Your task to perform on an android device: turn notification dots off Image 0: 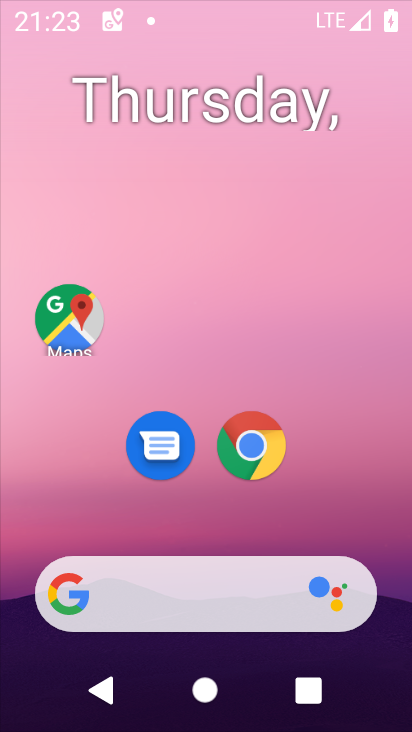
Step 0: click (353, 119)
Your task to perform on an android device: turn notification dots off Image 1: 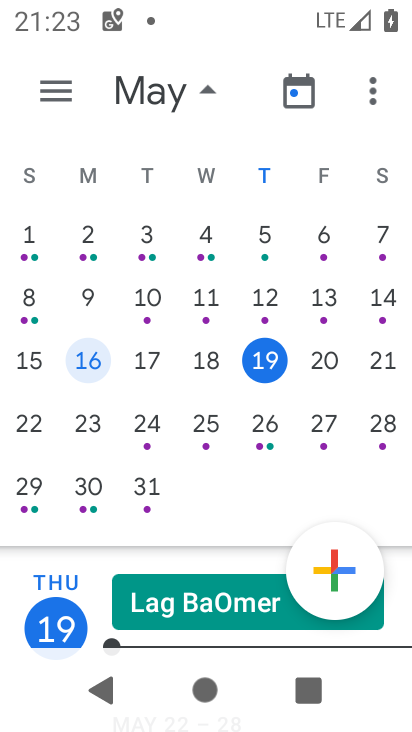
Step 1: drag from (224, 523) to (243, 198)
Your task to perform on an android device: turn notification dots off Image 2: 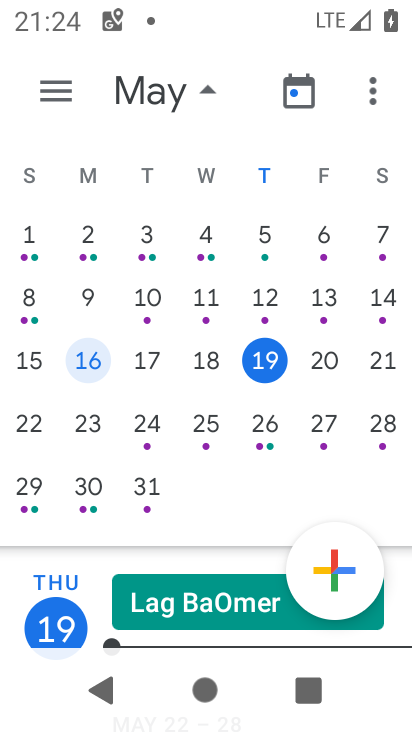
Step 2: press home button
Your task to perform on an android device: turn notification dots off Image 3: 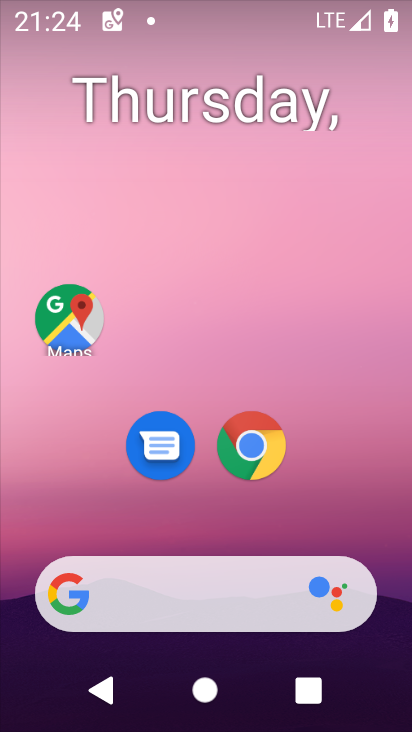
Step 3: drag from (189, 530) to (288, 205)
Your task to perform on an android device: turn notification dots off Image 4: 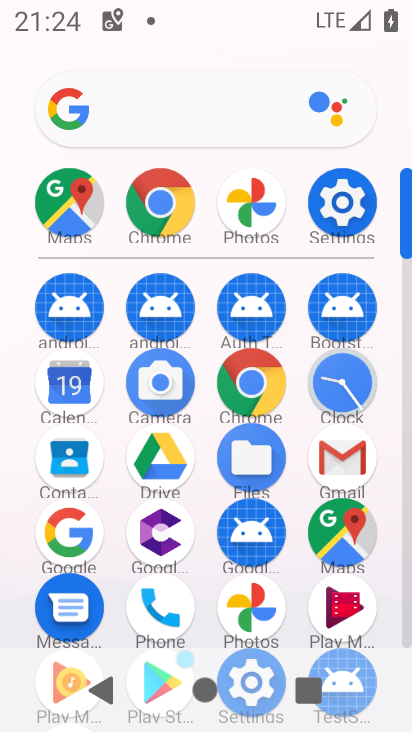
Step 4: click (322, 198)
Your task to perform on an android device: turn notification dots off Image 5: 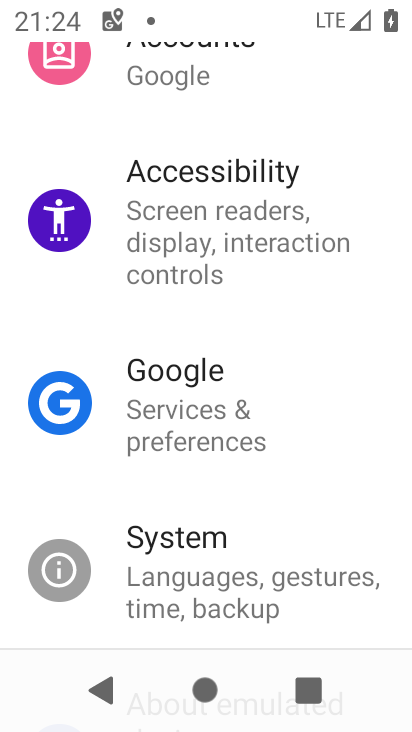
Step 5: drag from (258, 181) to (385, 720)
Your task to perform on an android device: turn notification dots off Image 6: 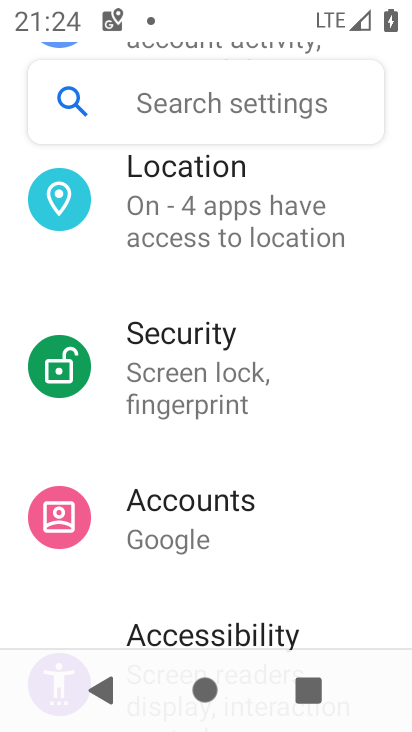
Step 6: drag from (234, 193) to (359, 718)
Your task to perform on an android device: turn notification dots off Image 7: 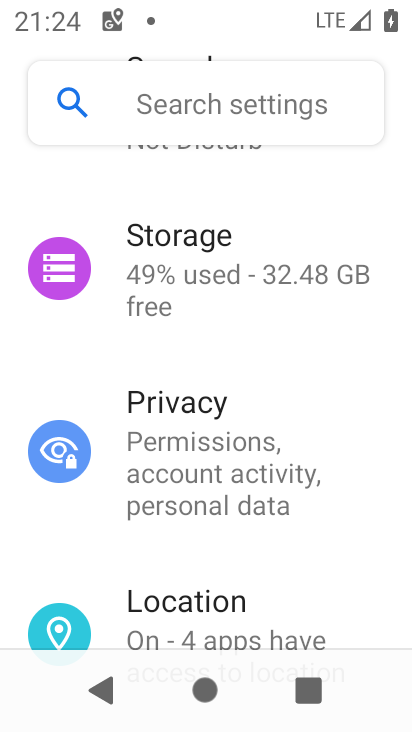
Step 7: drag from (251, 290) to (330, 730)
Your task to perform on an android device: turn notification dots off Image 8: 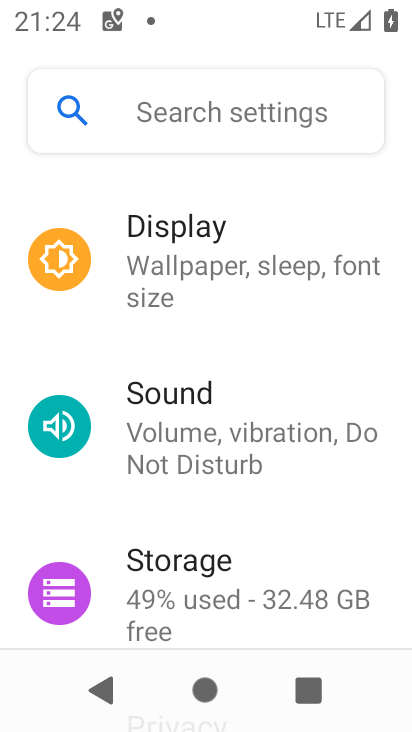
Step 8: drag from (204, 335) to (342, 727)
Your task to perform on an android device: turn notification dots off Image 9: 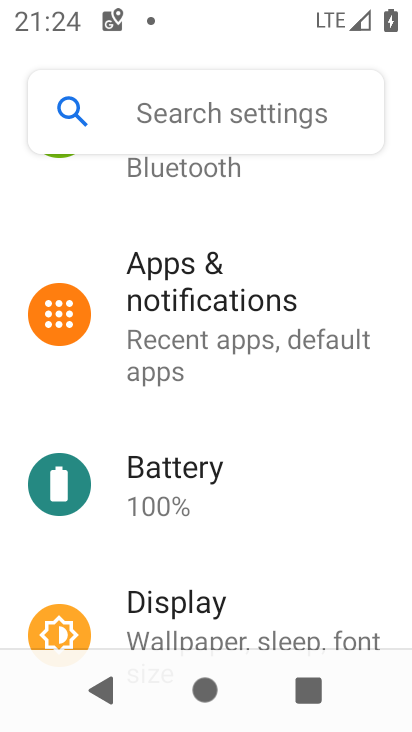
Step 9: drag from (232, 415) to (320, 725)
Your task to perform on an android device: turn notification dots off Image 10: 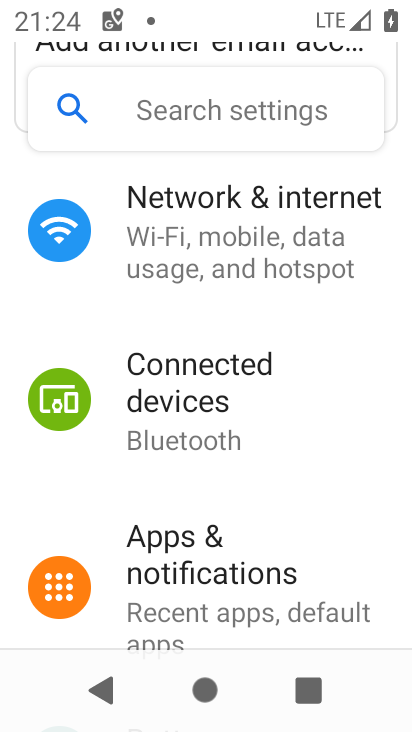
Step 10: click (212, 561)
Your task to perform on an android device: turn notification dots off Image 11: 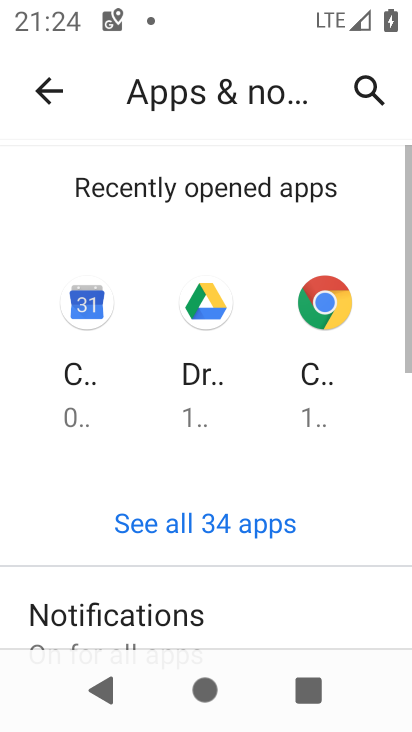
Step 11: drag from (220, 562) to (375, 100)
Your task to perform on an android device: turn notification dots off Image 12: 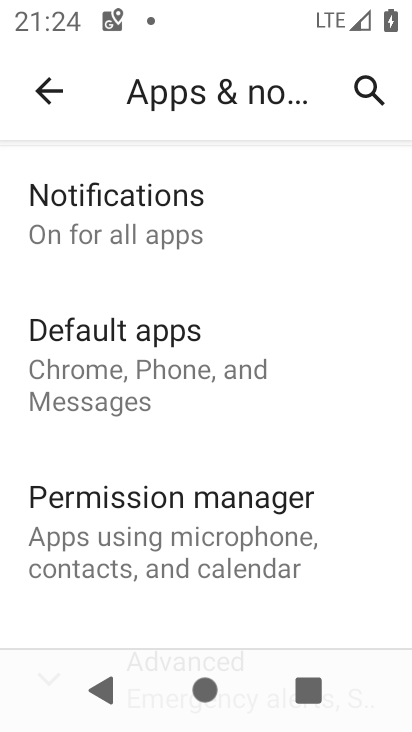
Step 12: click (158, 175)
Your task to perform on an android device: turn notification dots off Image 13: 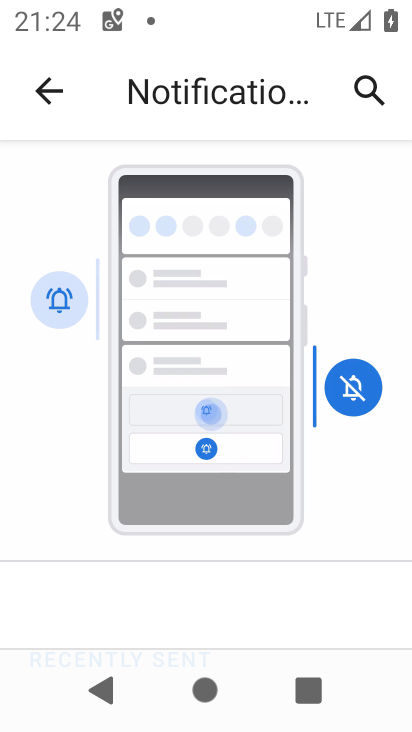
Step 13: drag from (206, 579) to (299, 168)
Your task to perform on an android device: turn notification dots off Image 14: 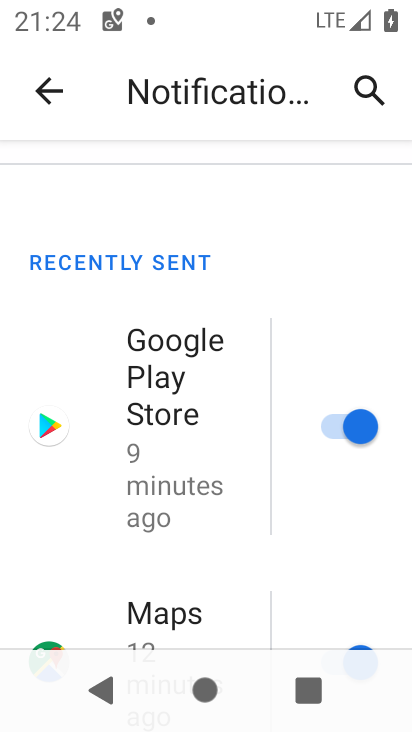
Step 14: drag from (262, 633) to (267, 291)
Your task to perform on an android device: turn notification dots off Image 15: 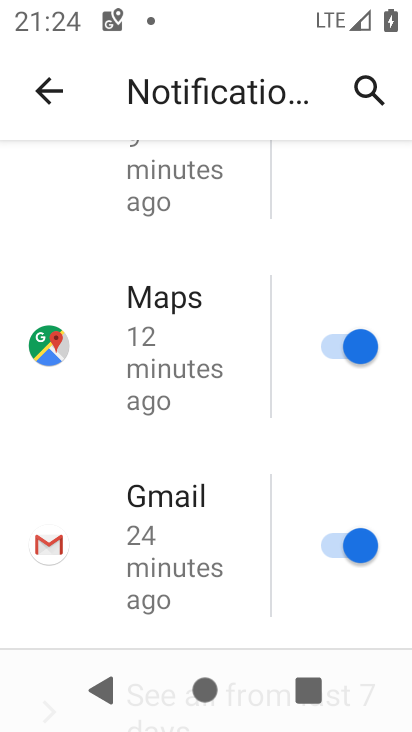
Step 15: drag from (254, 576) to (334, 220)
Your task to perform on an android device: turn notification dots off Image 16: 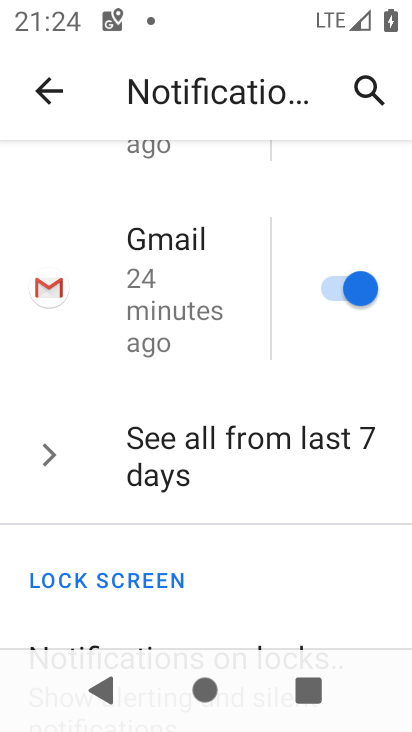
Step 16: drag from (269, 526) to (343, 273)
Your task to perform on an android device: turn notification dots off Image 17: 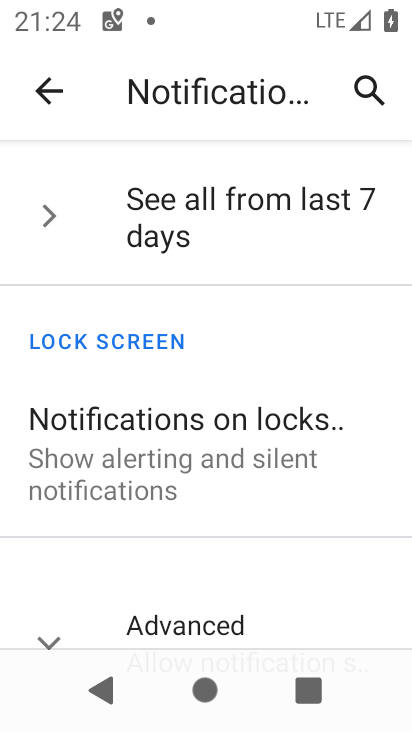
Step 17: click (145, 649)
Your task to perform on an android device: turn notification dots off Image 18: 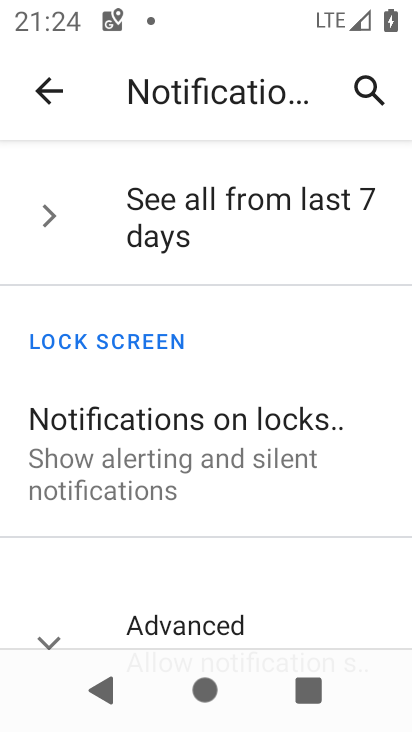
Step 18: drag from (178, 596) to (311, 268)
Your task to perform on an android device: turn notification dots off Image 19: 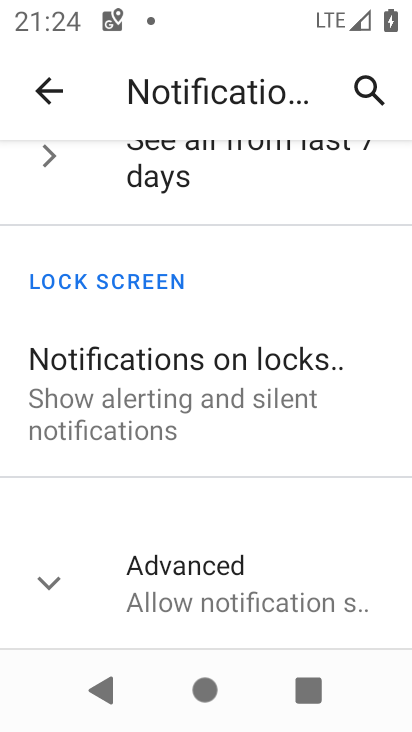
Step 19: click (207, 571)
Your task to perform on an android device: turn notification dots off Image 20: 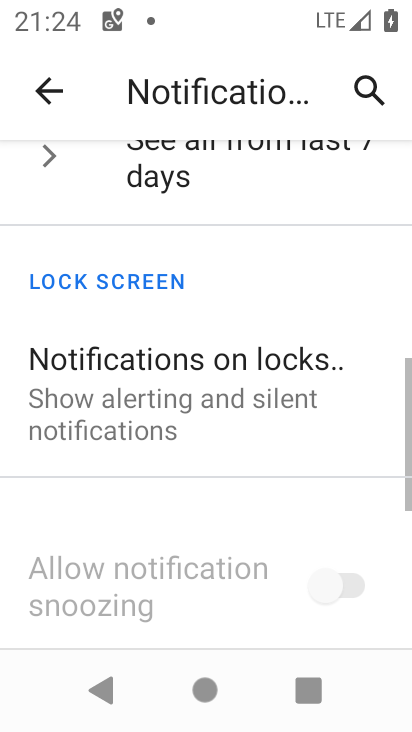
Step 20: drag from (207, 571) to (352, 207)
Your task to perform on an android device: turn notification dots off Image 21: 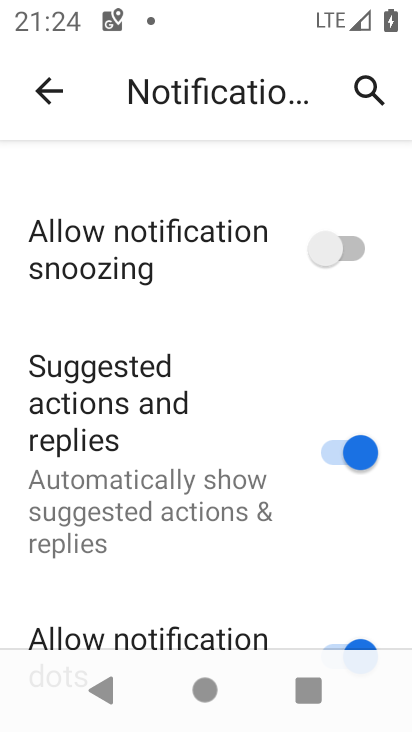
Step 21: drag from (299, 587) to (406, 169)
Your task to perform on an android device: turn notification dots off Image 22: 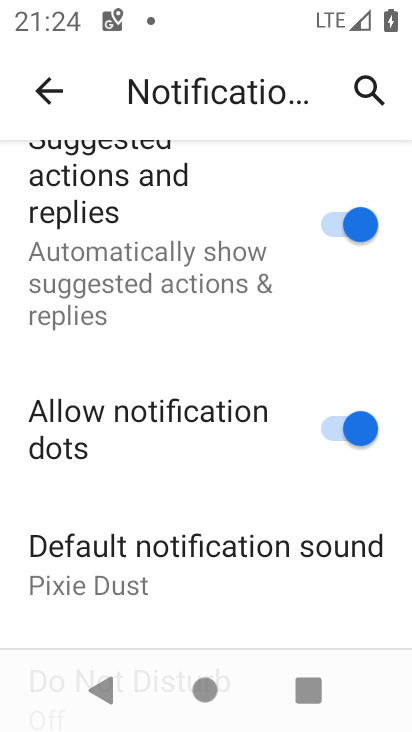
Step 22: click (343, 441)
Your task to perform on an android device: turn notification dots off Image 23: 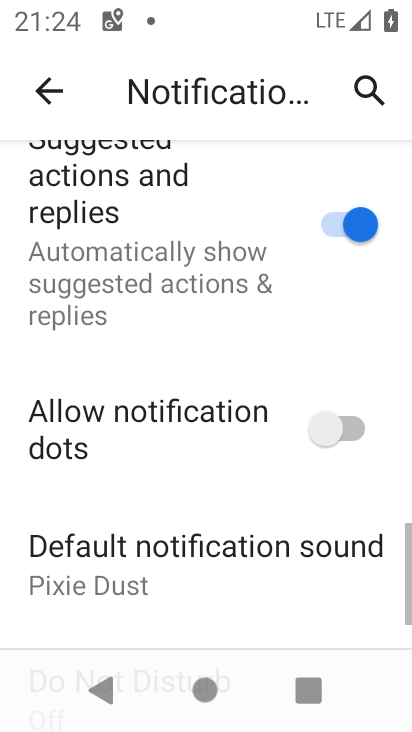
Step 23: task complete